Your task to perform on an android device: Open privacy settings Image 0: 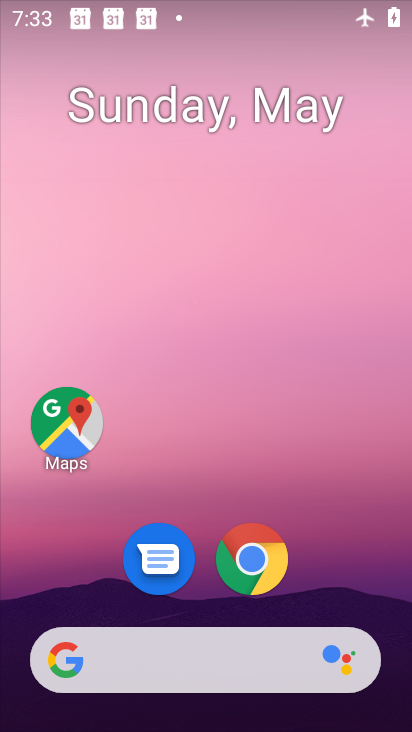
Step 0: press home button
Your task to perform on an android device: Open privacy settings Image 1: 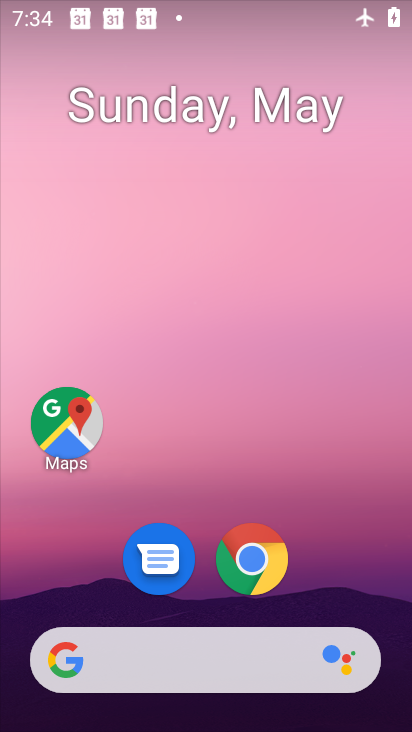
Step 1: drag from (192, 656) to (319, 185)
Your task to perform on an android device: Open privacy settings Image 2: 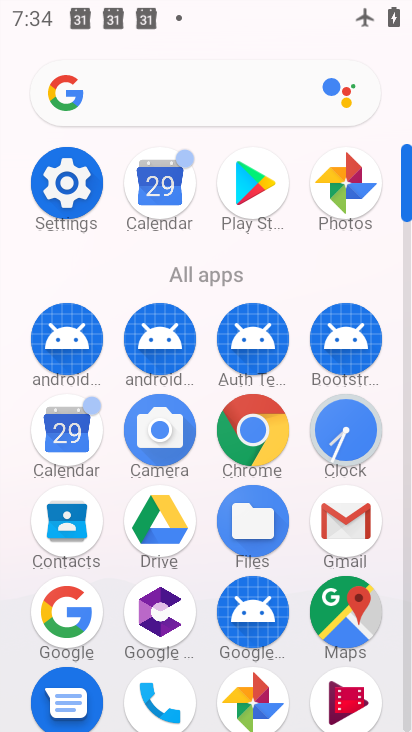
Step 2: click (81, 188)
Your task to perform on an android device: Open privacy settings Image 3: 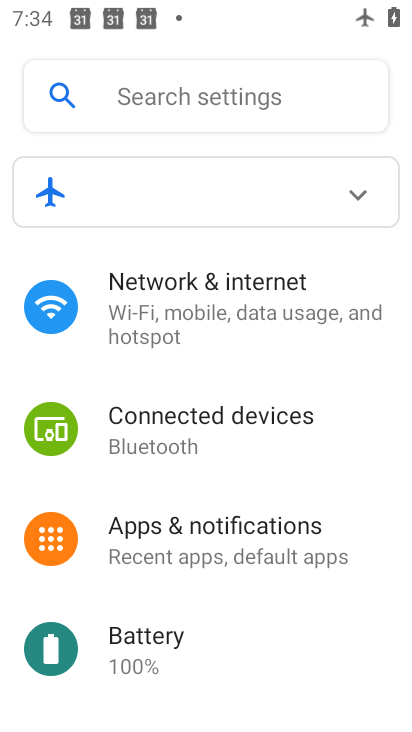
Step 3: drag from (246, 608) to (288, 191)
Your task to perform on an android device: Open privacy settings Image 4: 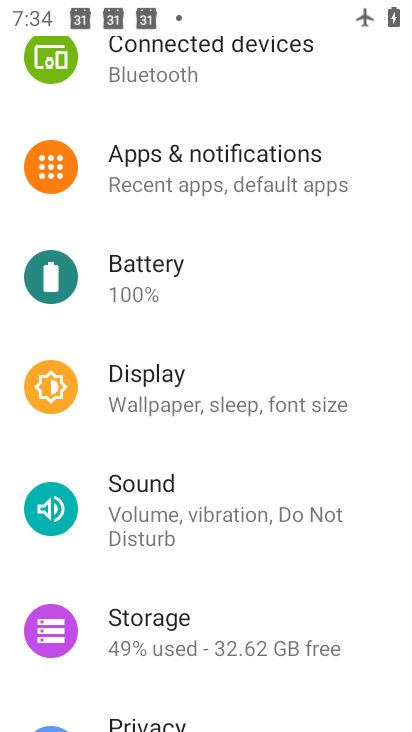
Step 4: drag from (257, 596) to (329, 207)
Your task to perform on an android device: Open privacy settings Image 5: 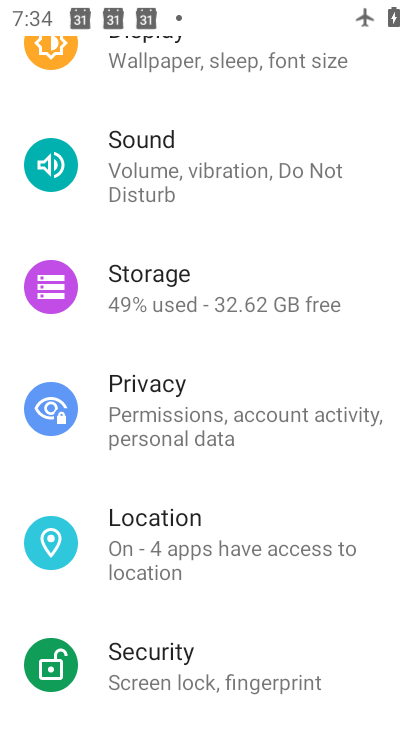
Step 5: click (155, 412)
Your task to perform on an android device: Open privacy settings Image 6: 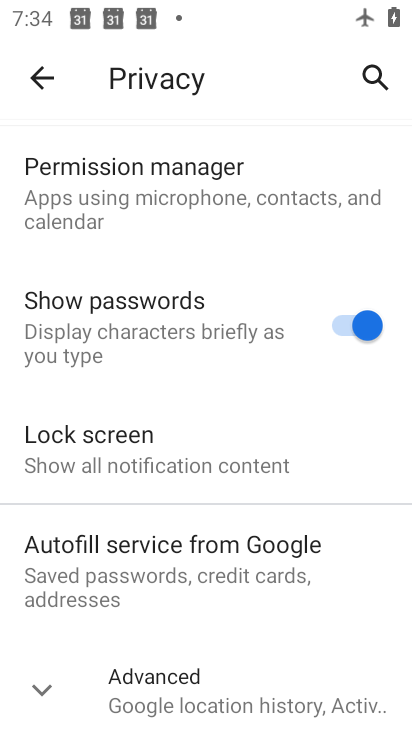
Step 6: task complete